Your task to perform on an android device: Go to battery settings Image 0: 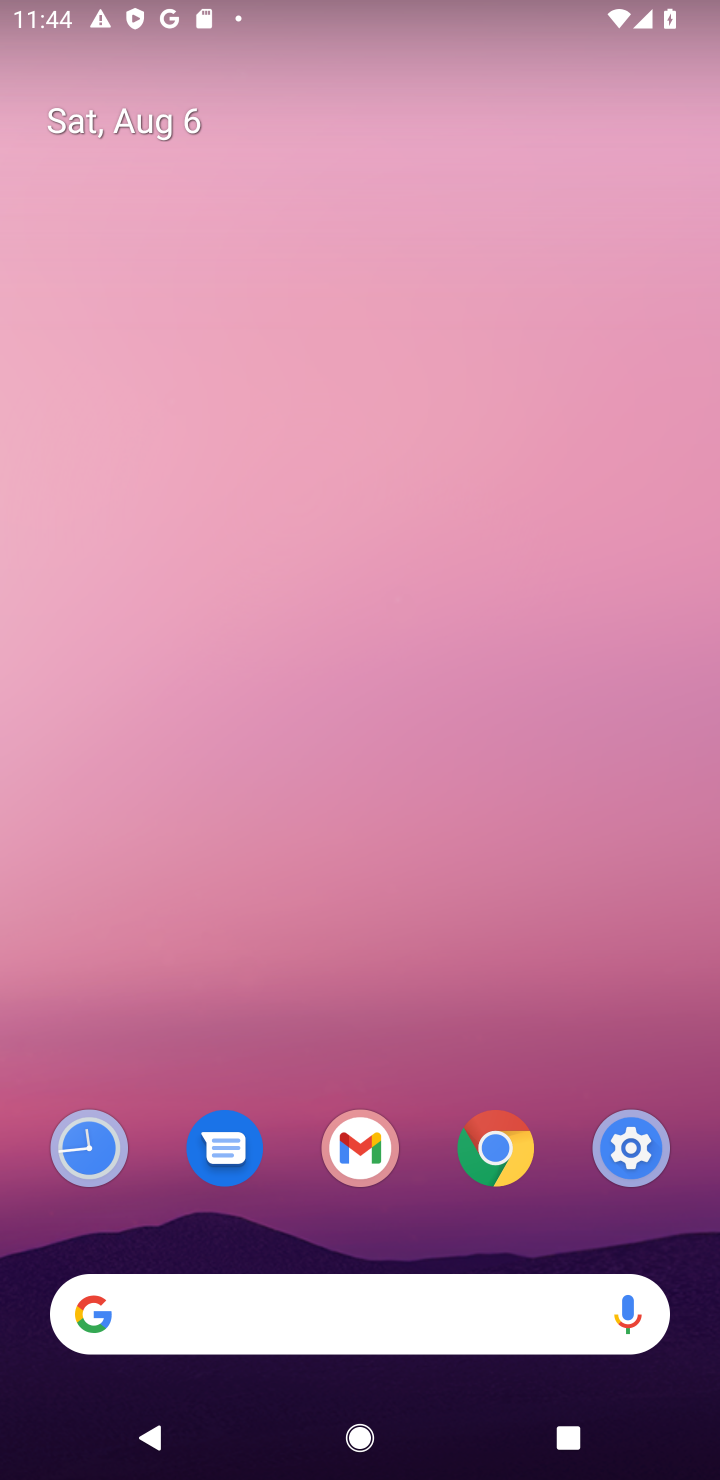
Step 0: click (638, 1162)
Your task to perform on an android device: Go to battery settings Image 1: 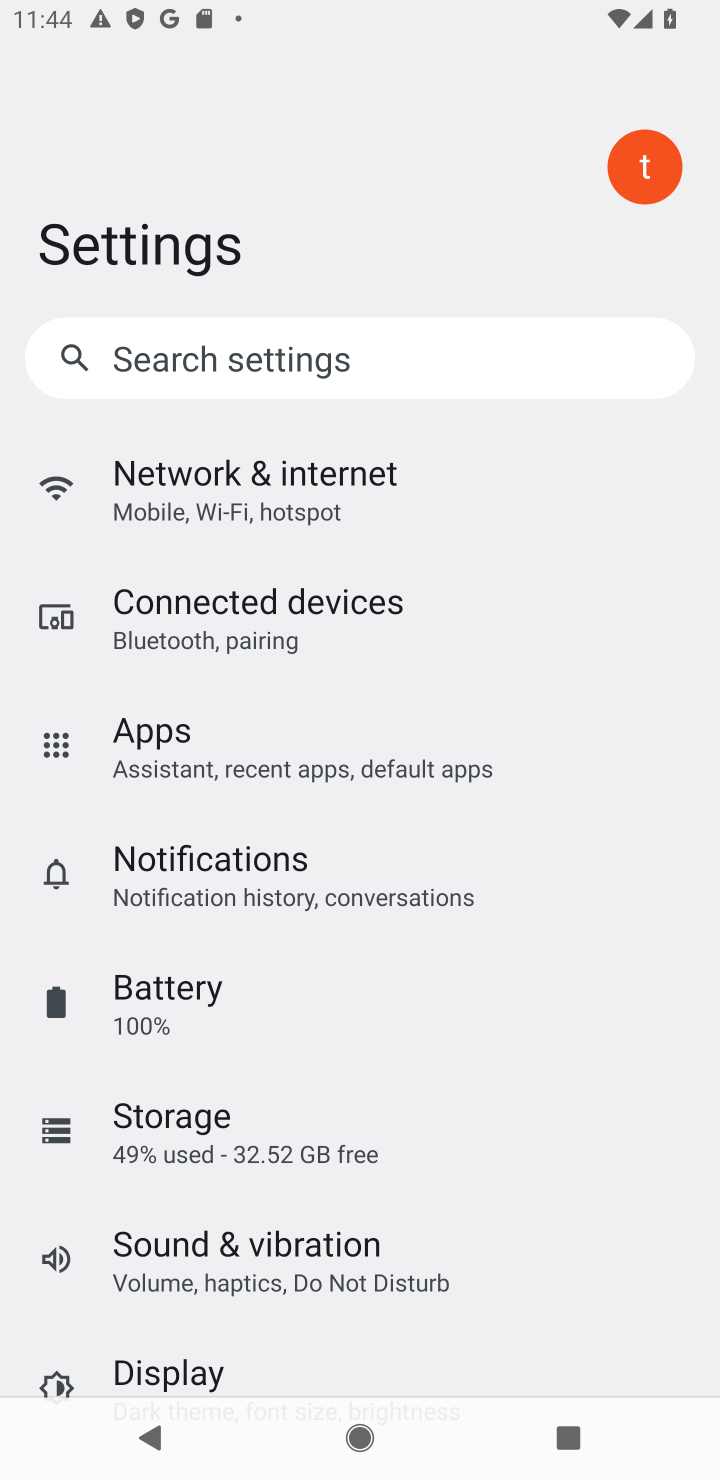
Step 1: click (177, 981)
Your task to perform on an android device: Go to battery settings Image 2: 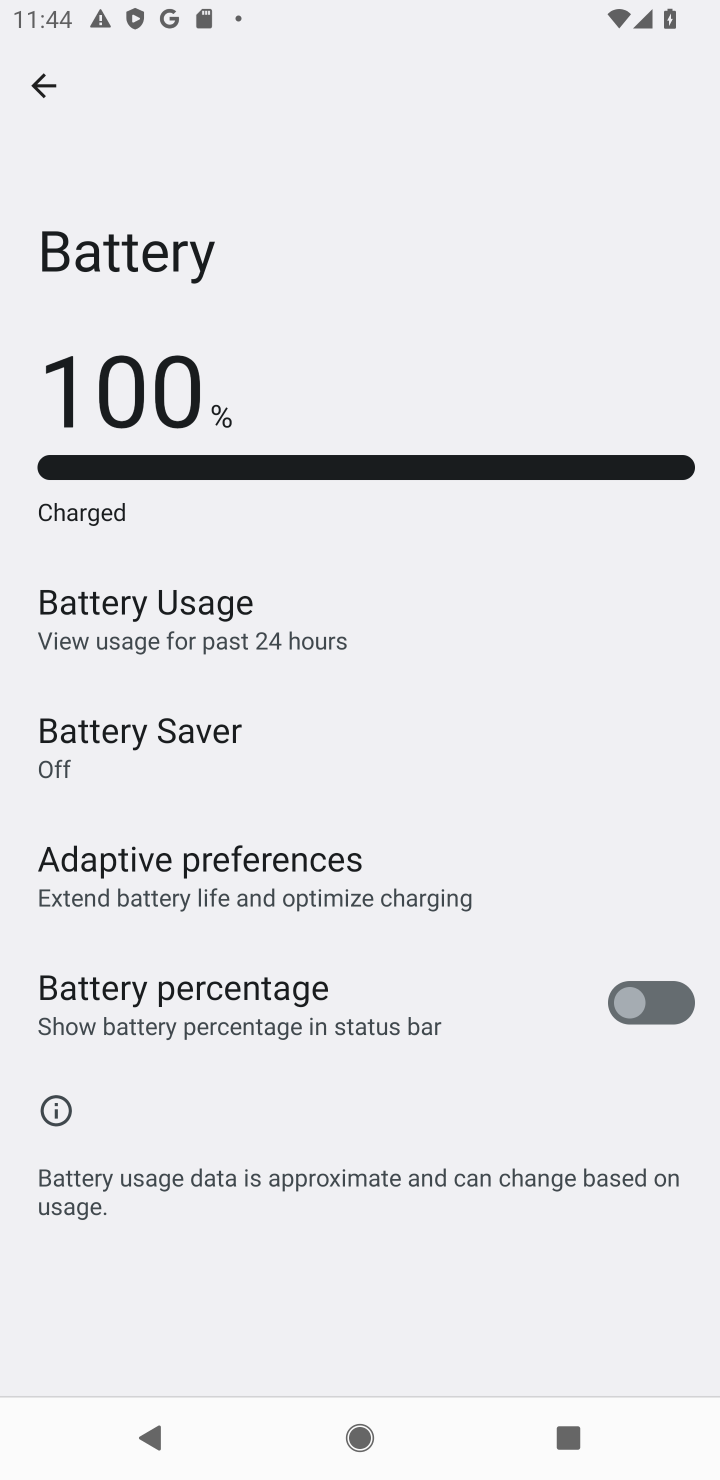
Step 2: task complete